Your task to perform on an android device: stop showing notifications on the lock screen Image 0: 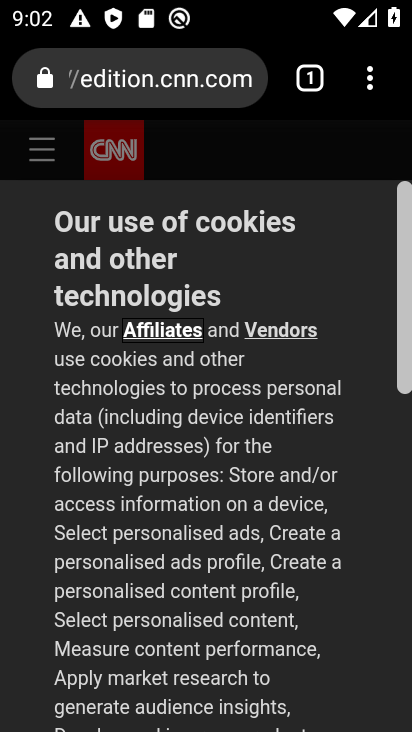
Step 0: press home button
Your task to perform on an android device: stop showing notifications on the lock screen Image 1: 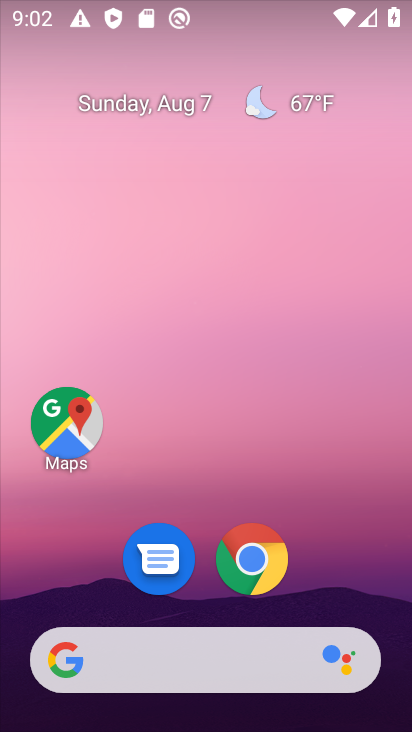
Step 1: drag from (358, 574) to (269, 188)
Your task to perform on an android device: stop showing notifications on the lock screen Image 2: 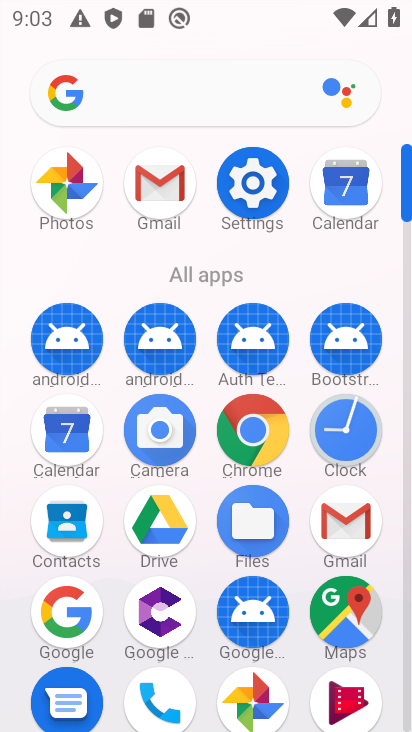
Step 2: click (265, 219)
Your task to perform on an android device: stop showing notifications on the lock screen Image 3: 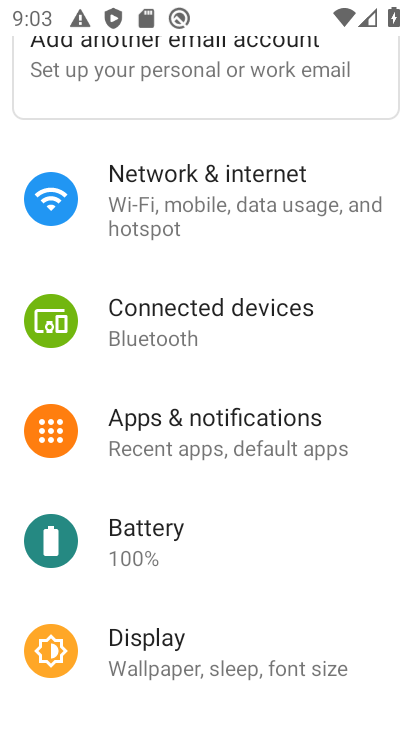
Step 3: click (240, 436)
Your task to perform on an android device: stop showing notifications on the lock screen Image 4: 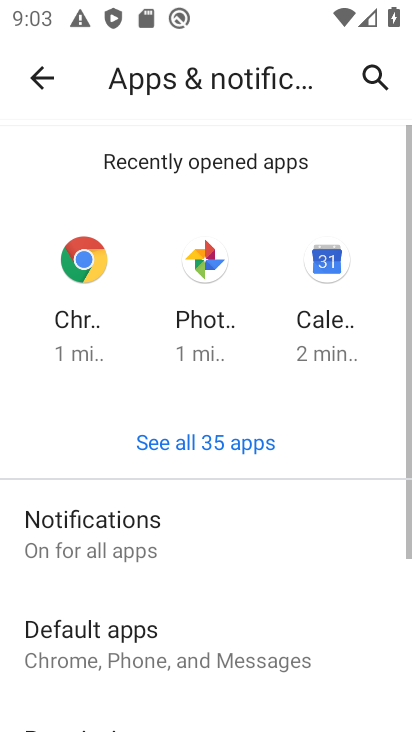
Step 4: click (144, 528)
Your task to perform on an android device: stop showing notifications on the lock screen Image 5: 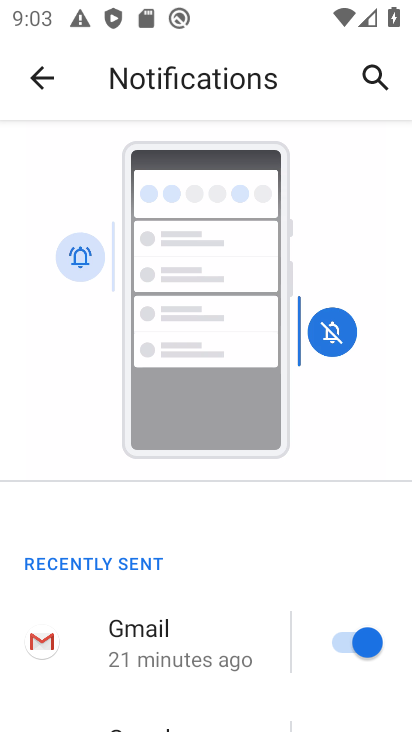
Step 5: drag from (240, 580) to (239, 169)
Your task to perform on an android device: stop showing notifications on the lock screen Image 6: 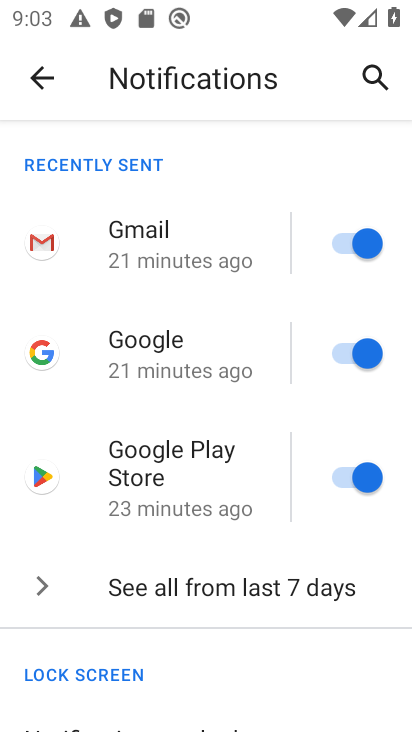
Step 6: drag from (235, 677) to (227, 388)
Your task to perform on an android device: stop showing notifications on the lock screen Image 7: 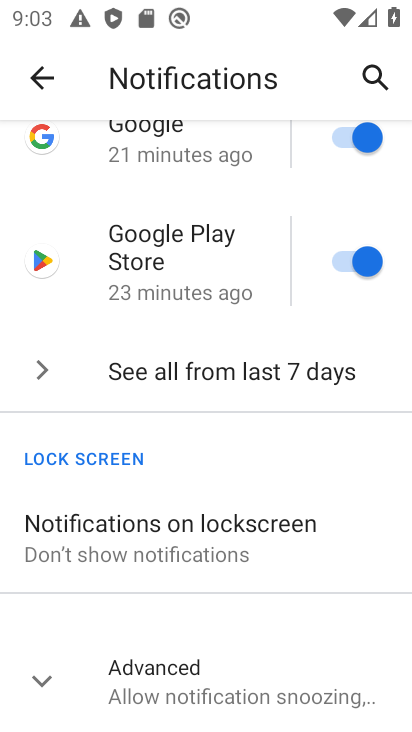
Step 7: click (147, 535)
Your task to perform on an android device: stop showing notifications on the lock screen Image 8: 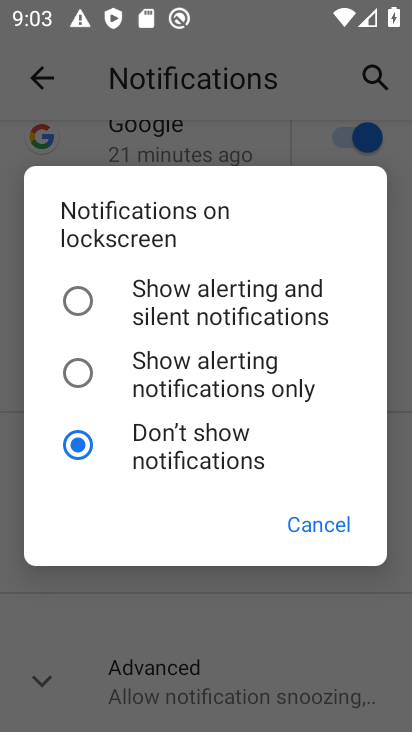
Step 8: task complete